Your task to perform on an android device: find snoozed emails in the gmail app Image 0: 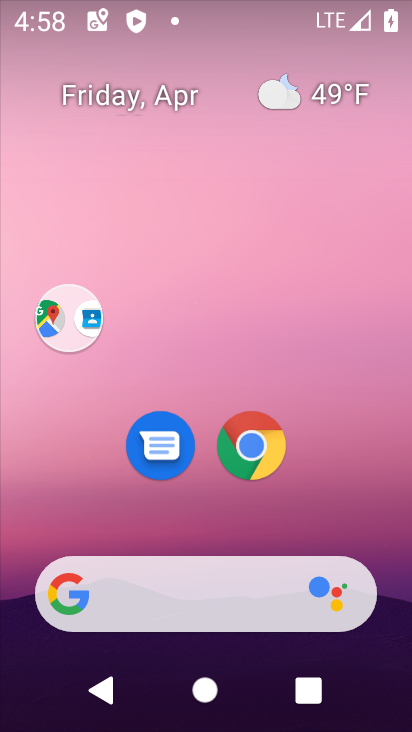
Step 0: drag from (340, 498) to (312, 59)
Your task to perform on an android device: find snoozed emails in the gmail app Image 1: 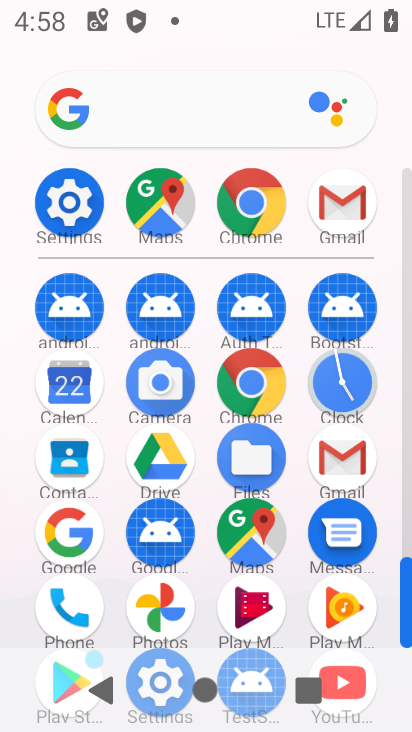
Step 1: click (332, 472)
Your task to perform on an android device: find snoozed emails in the gmail app Image 2: 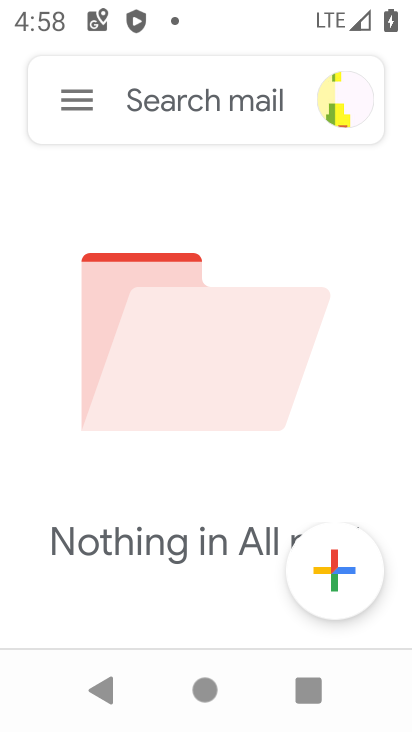
Step 2: click (81, 101)
Your task to perform on an android device: find snoozed emails in the gmail app Image 3: 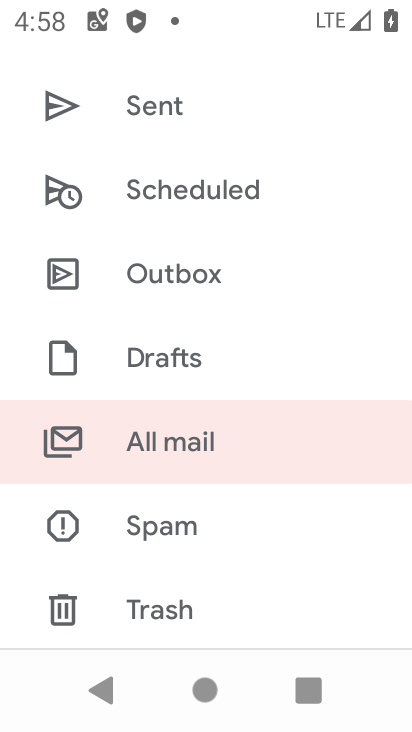
Step 3: drag from (201, 566) to (295, 245)
Your task to perform on an android device: find snoozed emails in the gmail app Image 4: 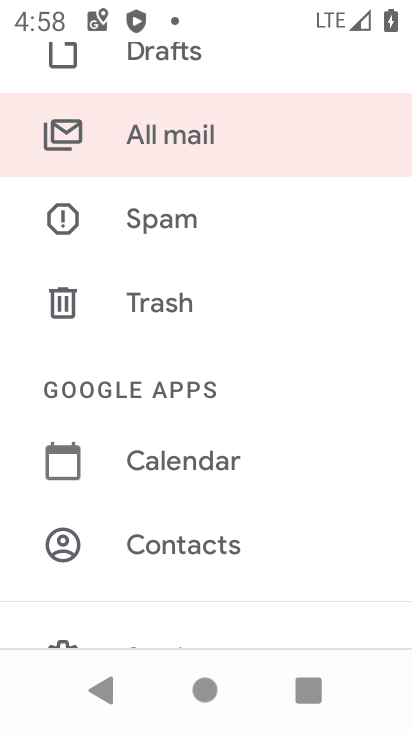
Step 4: drag from (255, 228) to (294, 615)
Your task to perform on an android device: find snoozed emails in the gmail app Image 5: 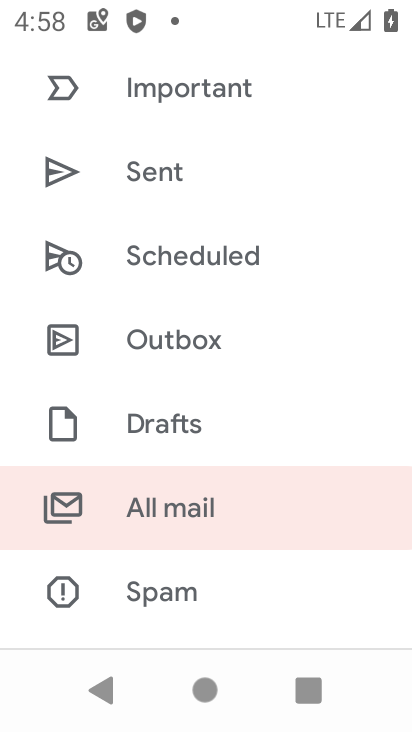
Step 5: drag from (288, 417) to (304, 659)
Your task to perform on an android device: find snoozed emails in the gmail app Image 6: 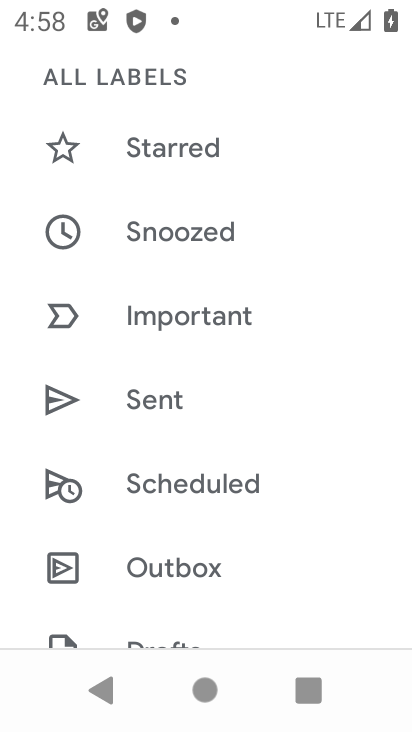
Step 6: click (205, 236)
Your task to perform on an android device: find snoozed emails in the gmail app Image 7: 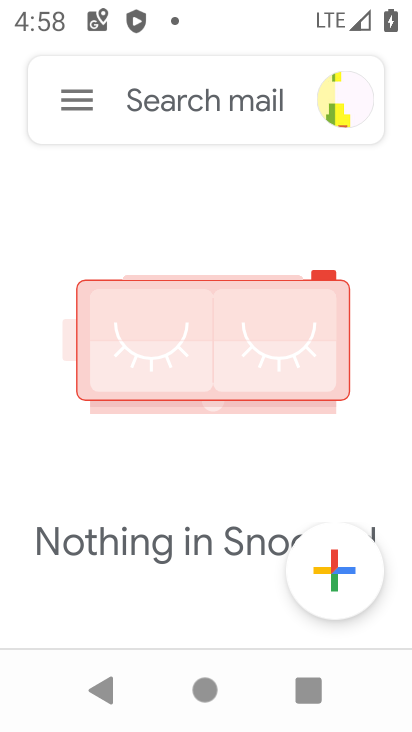
Step 7: task complete